Your task to perform on an android device: install app "Google Drive" Image 0: 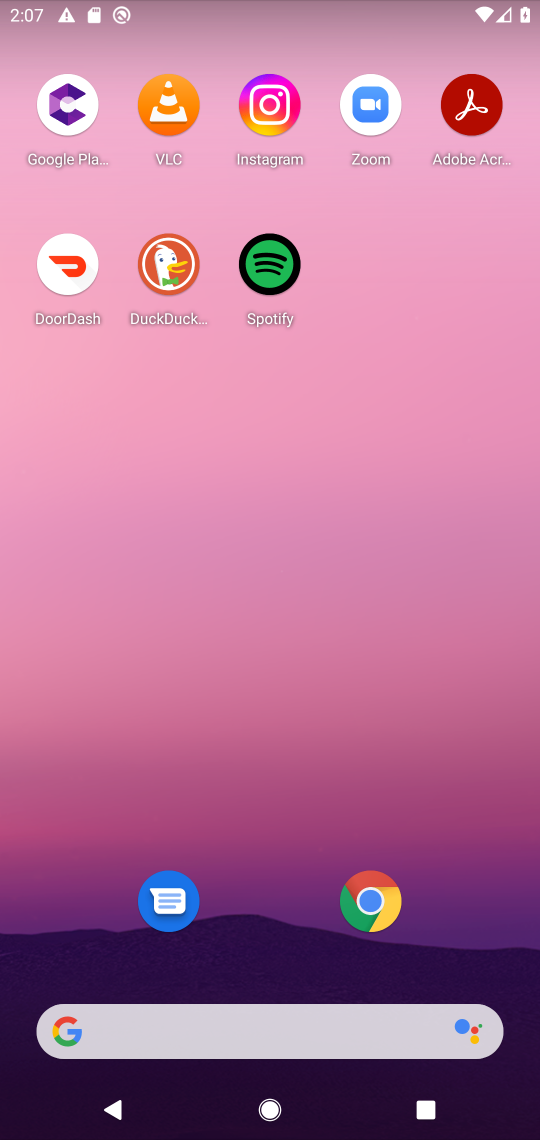
Step 0: drag from (490, 981) to (455, 165)
Your task to perform on an android device: install app "Google Drive" Image 1: 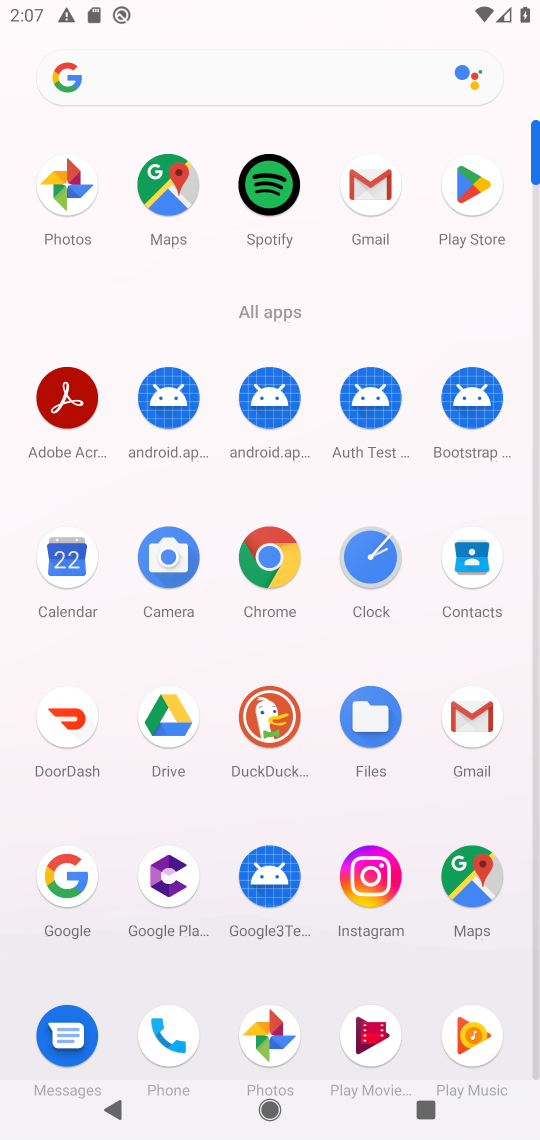
Step 1: drag from (314, 990) to (304, 630)
Your task to perform on an android device: install app "Google Drive" Image 2: 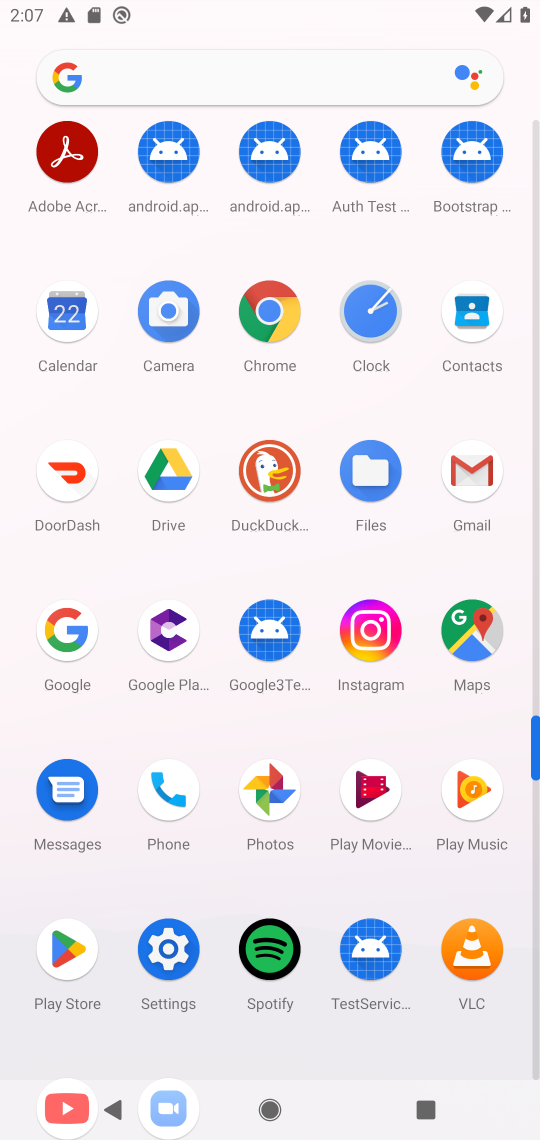
Step 2: click (74, 958)
Your task to perform on an android device: install app "Google Drive" Image 3: 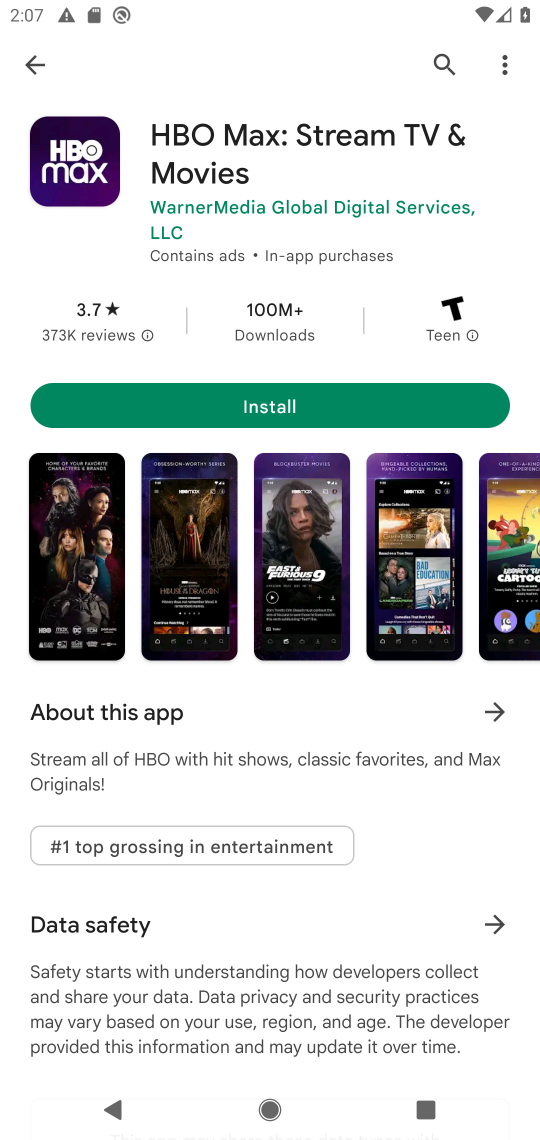
Step 3: click (435, 65)
Your task to perform on an android device: install app "Google Drive" Image 4: 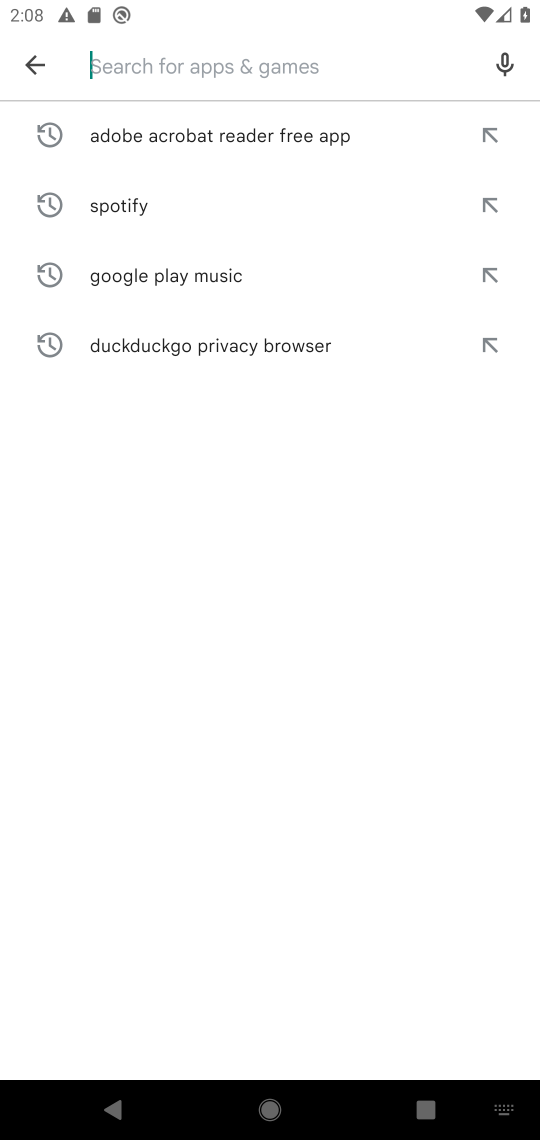
Step 4: type "Google Drive"
Your task to perform on an android device: install app "Google Drive" Image 5: 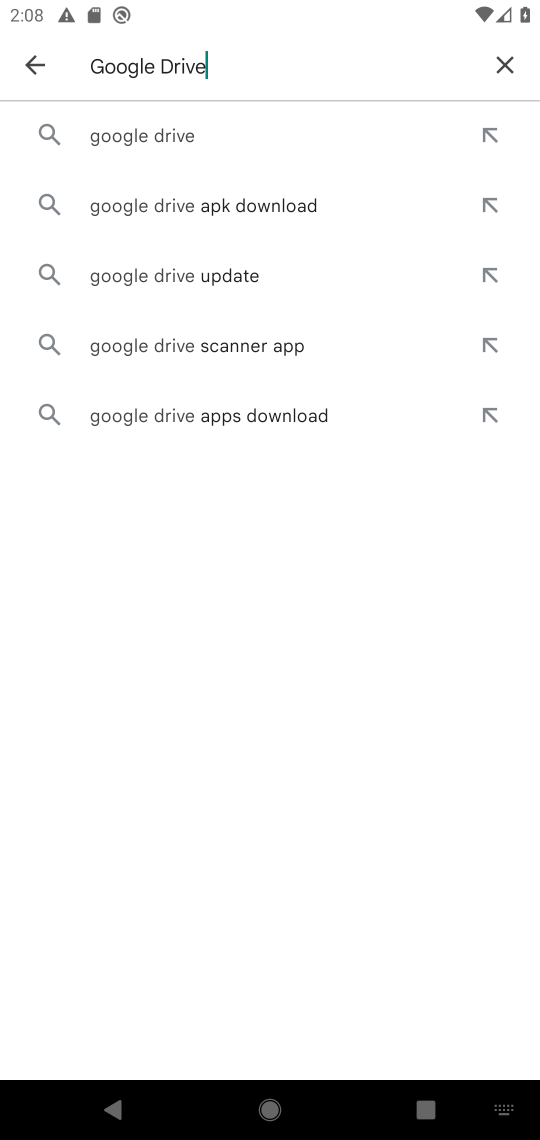
Step 5: click (139, 136)
Your task to perform on an android device: install app "Google Drive" Image 6: 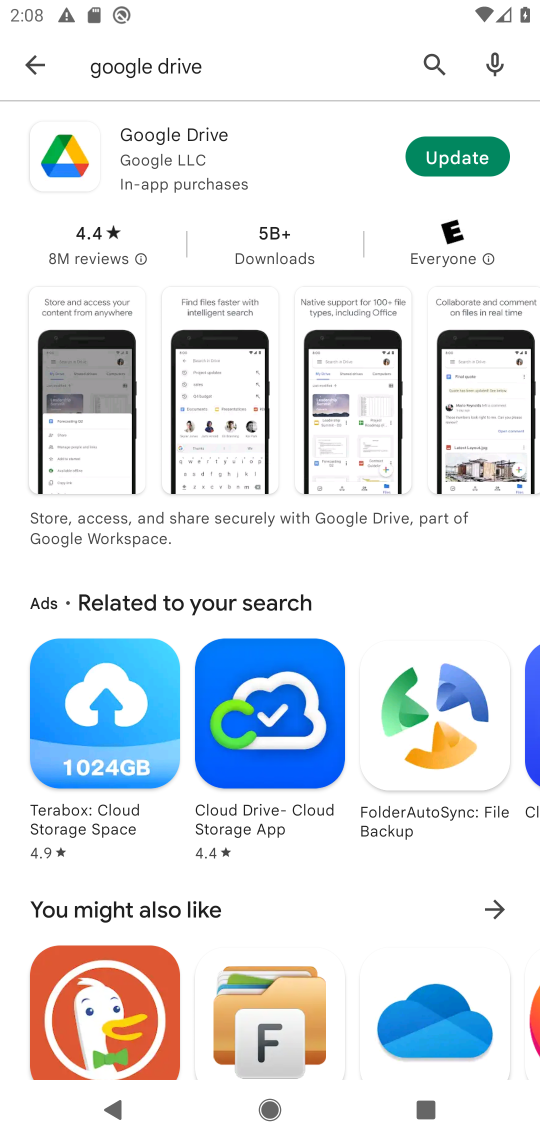
Step 6: task complete